Your task to perform on an android device: Turn on the flashlight Image 0: 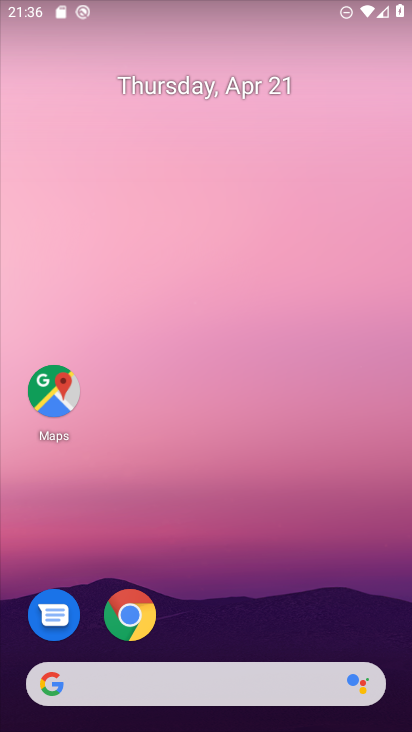
Step 0: drag from (212, 546) to (249, 125)
Your task to perform on an android device: Turn on the flashlight Image 1: 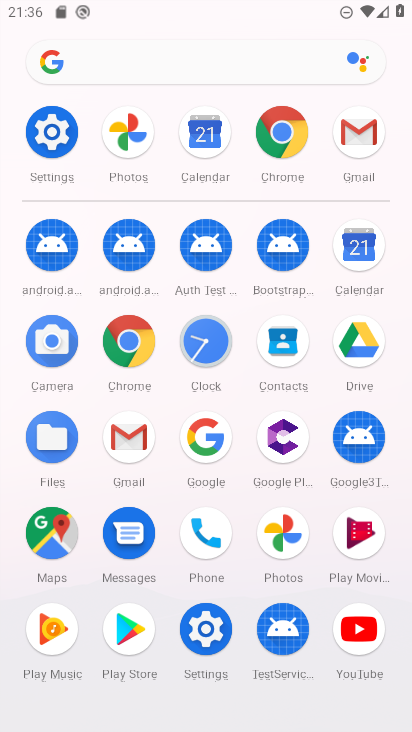
Step 1: click (211, 618)
Your task to perform on an android device: Turn on the flashlight Image 2: 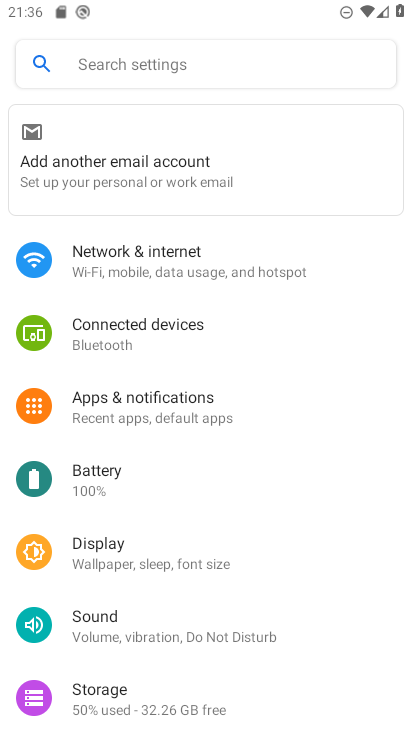
Step 2: click (162, 69)
Your task to perform on an android device: Turn on the flashlight Image 3: 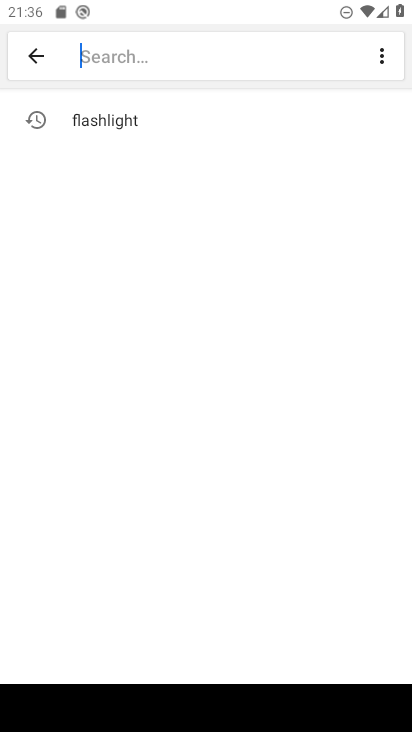
Step 3: click (185, 123)
Your task to perform on an android device: Turn on the flashlight Image 4: 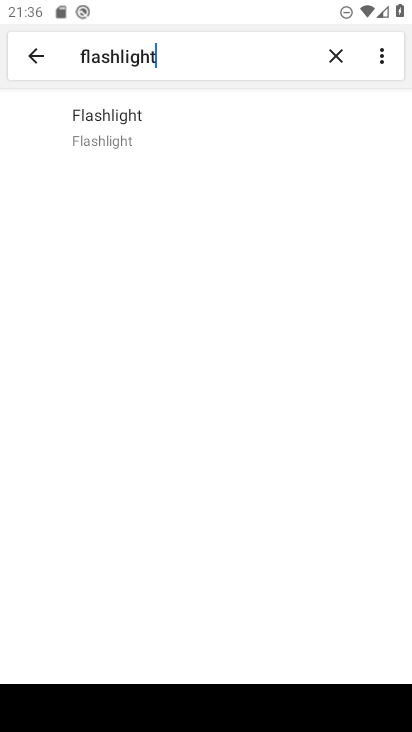
Step 4: task complete